Your task to perform on an android device: turn off sleep mode Image 0: 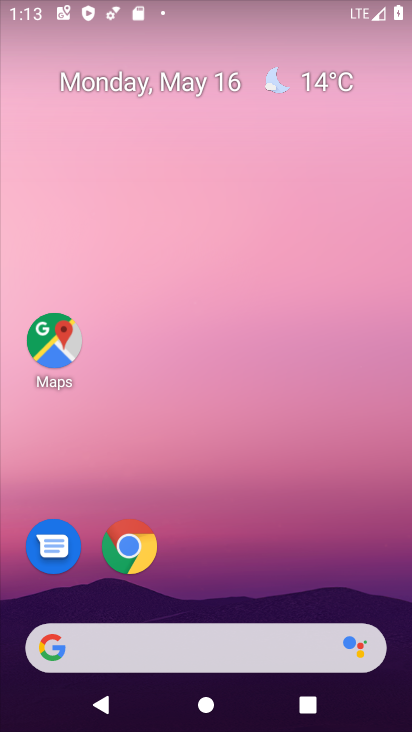
Step 0: drag from (263, 672) to (218, 283)
Your task to perform on an android device: turn off sleep mode Image 1: 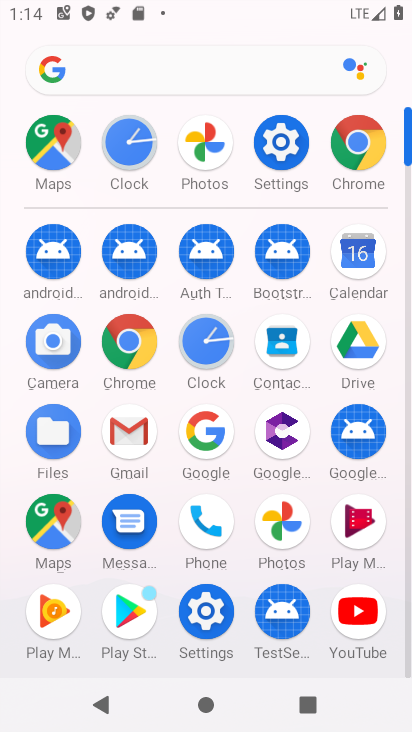
Step 1: click (277, 161)
Your task to perform on an android device: turn off sleep mode Image 2: 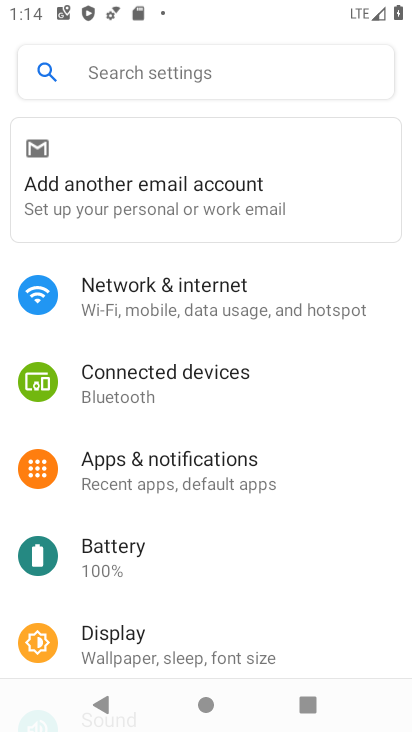
Step 2: click (182, 73)
Your task to perform on an android device: turn off sleep mode Image 3: 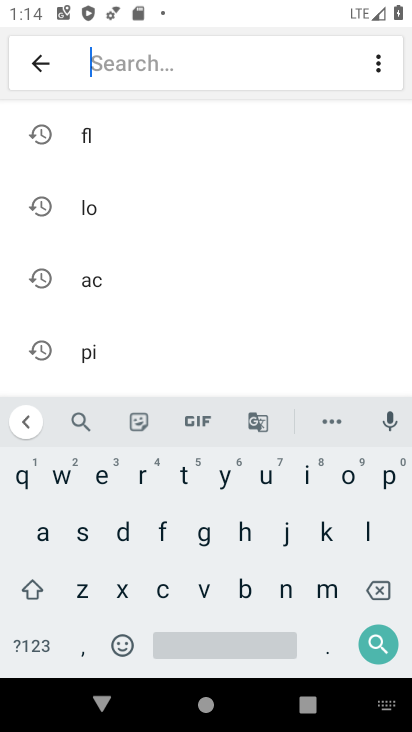
Step 3: click (85, 530)
Your task to perform on an android device: turn off sleep mode Image 4: 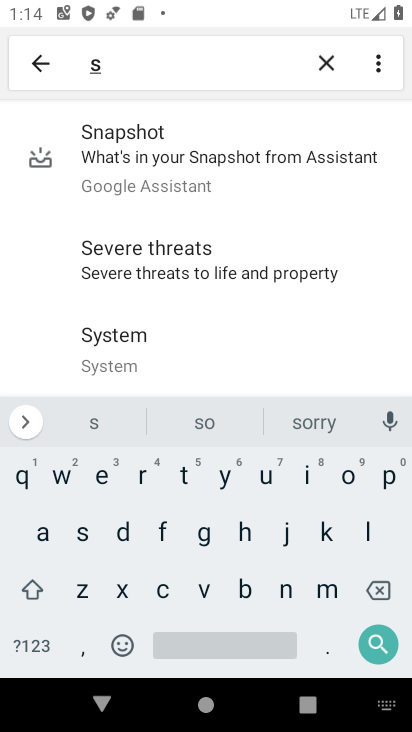
Step 4: click (374, 536)
Your task to perform on an android device: turn off sleep mode Image 5: 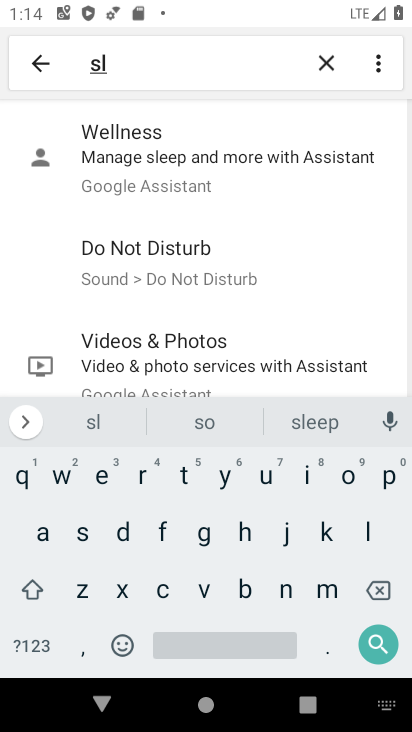
Step 5: click (102, 479)
Your task to perform on an android device: turn off sleep mode Image 6: 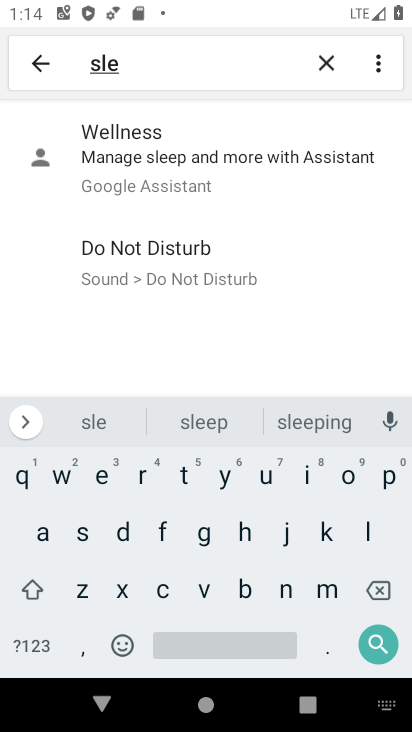
Step 6: click (134, 166)
Your task to perform on an android device: turn off sleep mode Image 7: 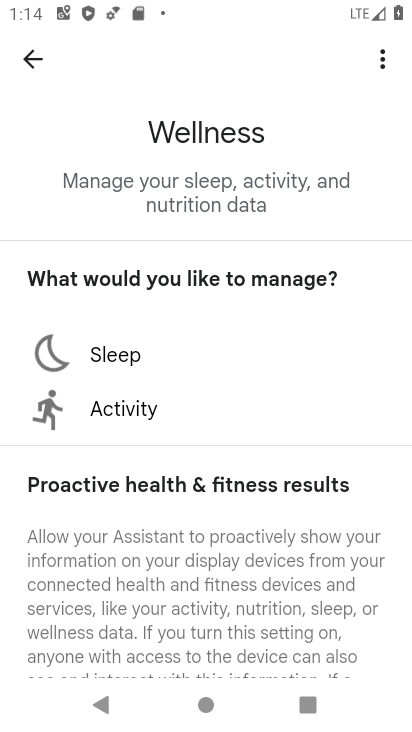
Step 7: click (121, 358)
Your task to perform on an android device: turn off sleep mode Image 8: 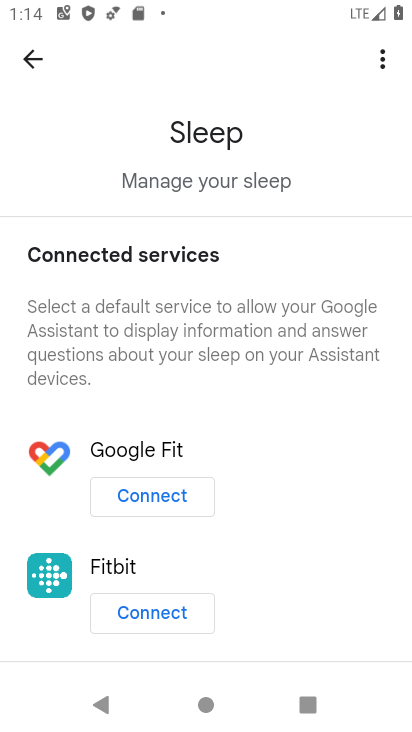
Step 8: task complete